Your task to perform on an android device: Open the calendar and show me this week's events? Image 0: 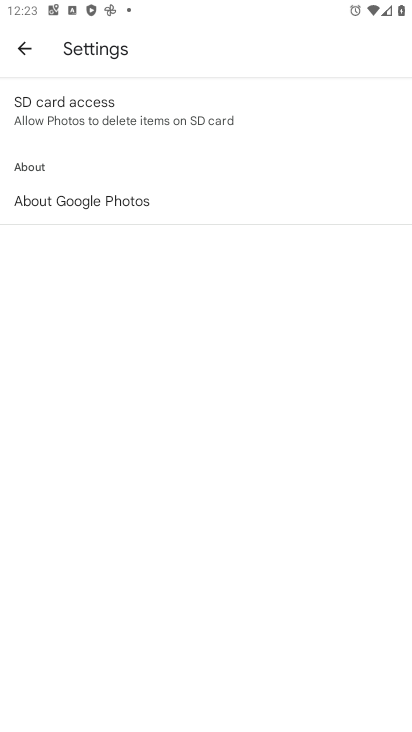
Step 0: press home button
Your task to perform on an android device: Open the calendar and show me this week's events? Image 1: 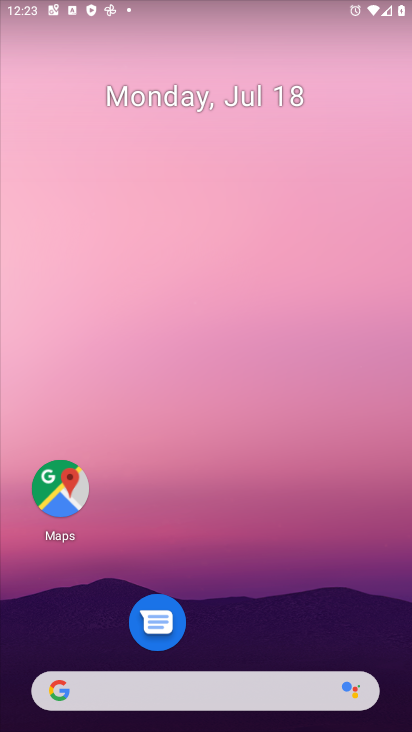
Step 1: drag from (271, 720) to (202, 78)
Your task to perform on an android device: Open the calendar and show me this week's events? Image 2: 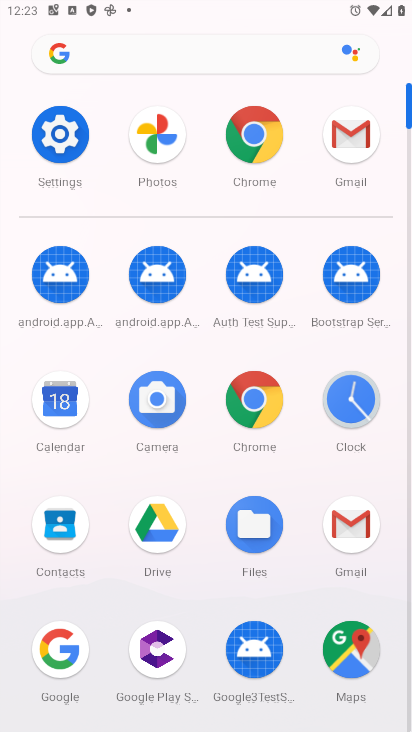
Step 2: click (66, 402)
Your task to perform on an android device: Open the calendar and show me this week's events? Image 3: 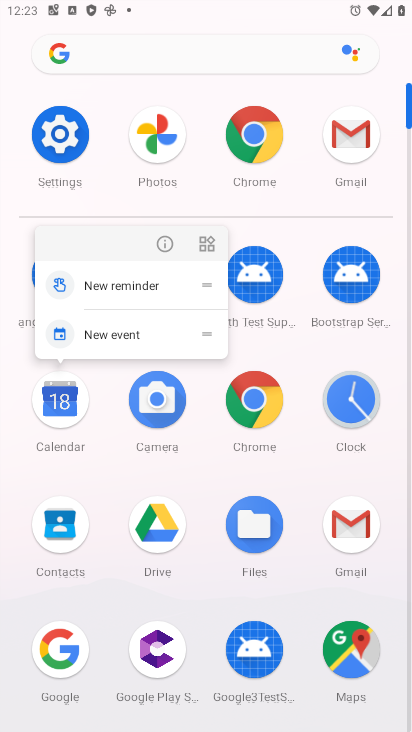
Step 3: click (67, 402)
Your task to perform on an android device: Open the calendar and show me this week's events? Image 4: 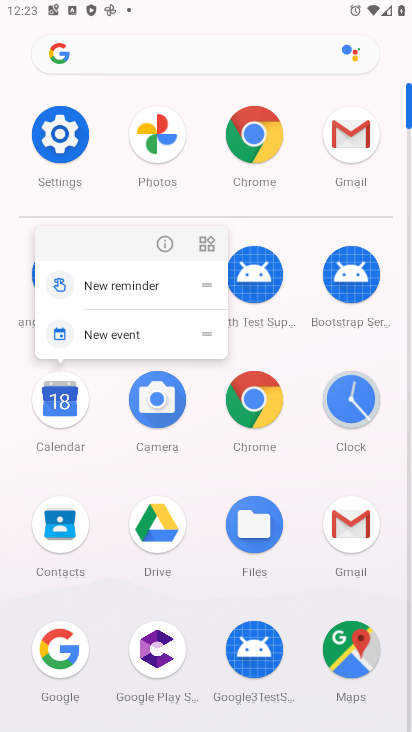
Step 4: click (67, 402)
Your task to perform on an android device: Open the calendar and show me this week's events? Image 5: 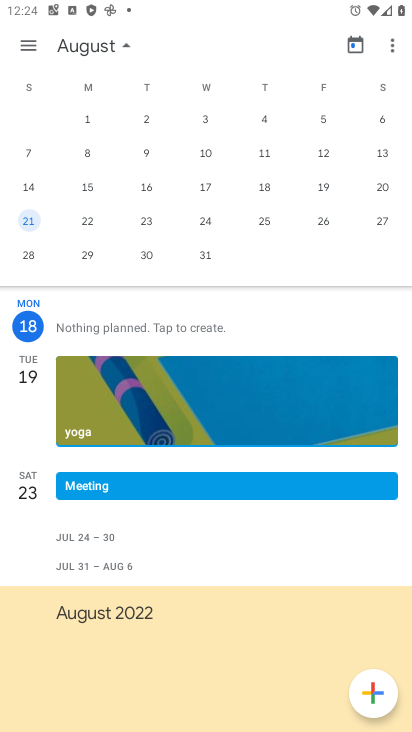
Step 5: drag from (92, 135) to (409, 175)
Your task to perform on an android device: Open the calendar and show me this week's events? Image 6: 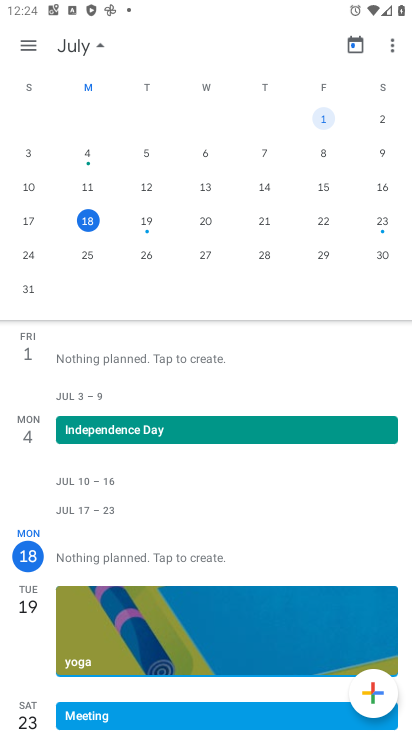
Step 6: click (88, 225)
Your task to perform on an android device: Open the calendar and show me this week's events? Image 7: 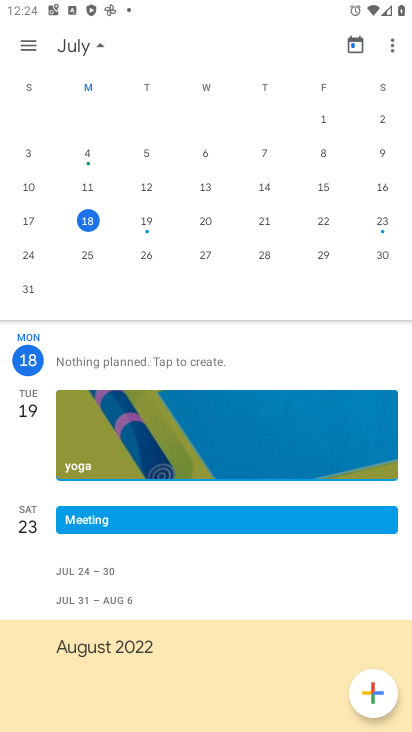
Step 7: task complete